Your task to perform on an android device: Empty the shopping cart on newegg.com. Add dell alienware to the cart on newegg.com, then select checkout. Image 0: 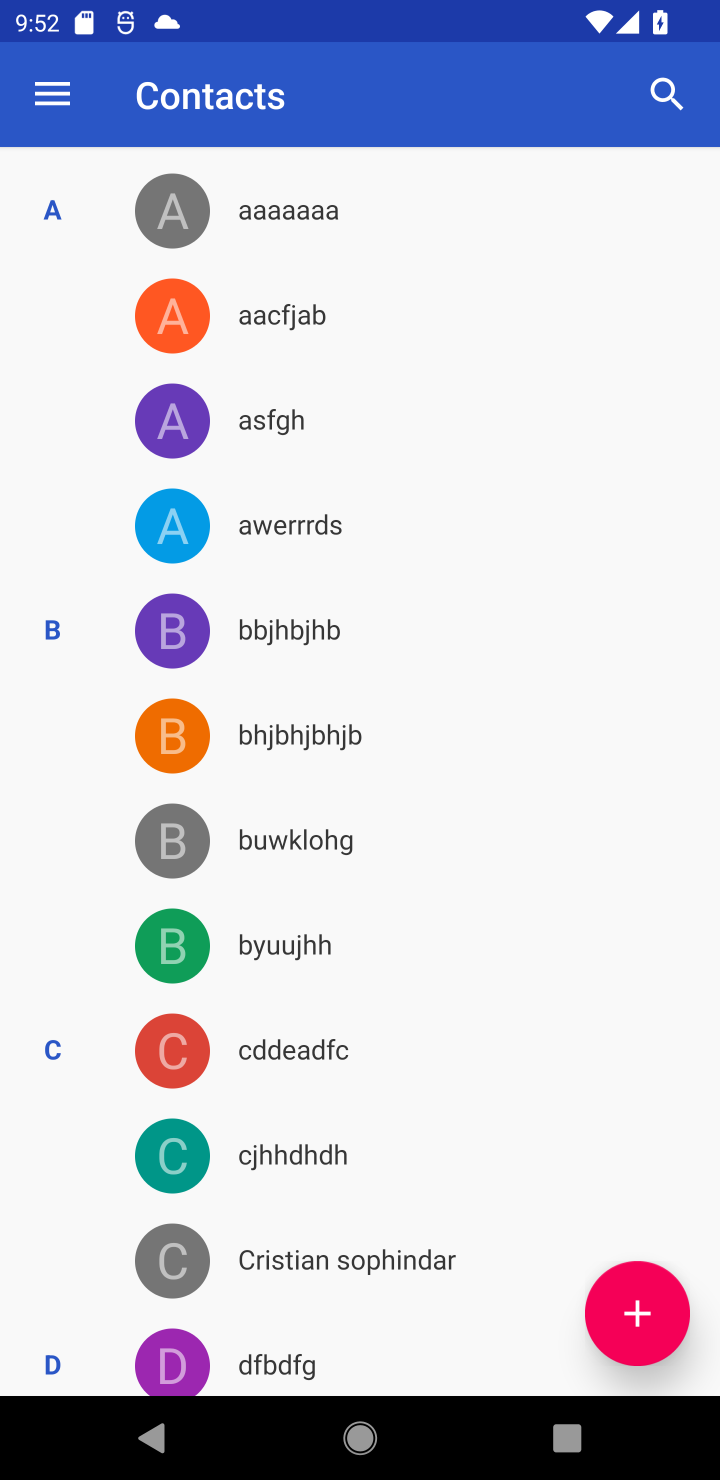
Step 0: press home button
Your task to perform on an android device: Empty the shopping cart on newegg.com. Add dell alienware to the cart on newegg.com, then select checkout. Image 1: 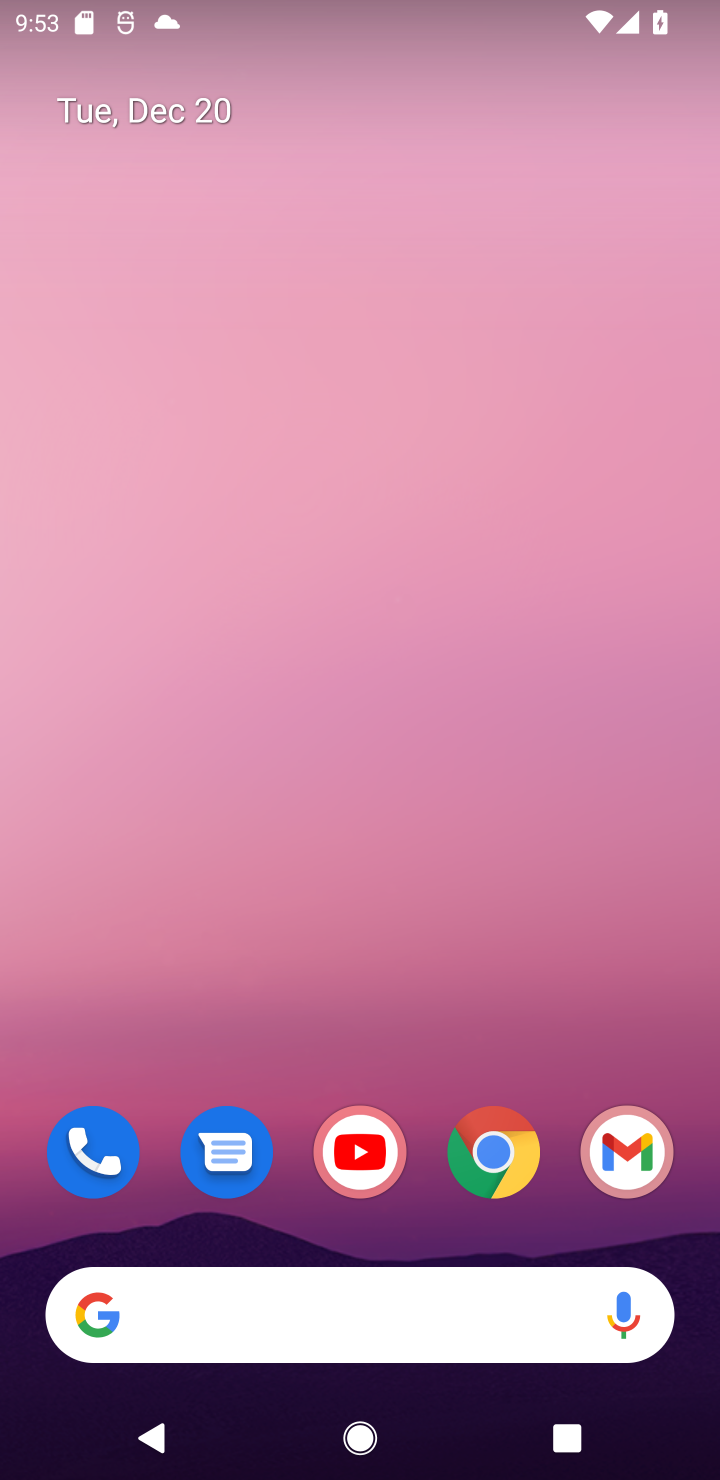
Step 1: click (496, 1128)
Your task to perform on an android device: Empty the shopping cart on newegg.com. Add dell alienware to the cart on newegg.com, then select checkout. Image 2: 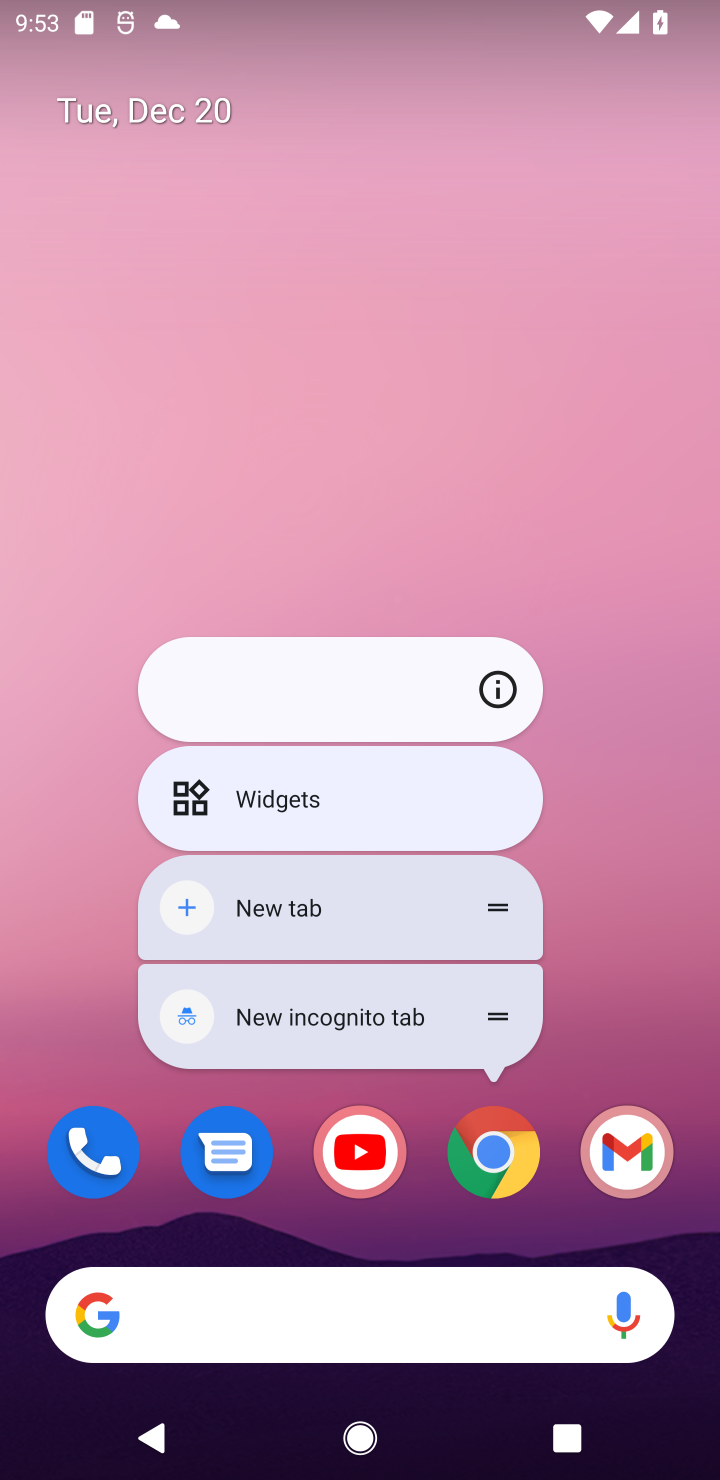
Step 2: click (488, 1163)
Your task to perform on an android device: Empty the shopping cart on newegg.com. Add dell alienware to the cart on newegg.com, then select checkout. Image 3: 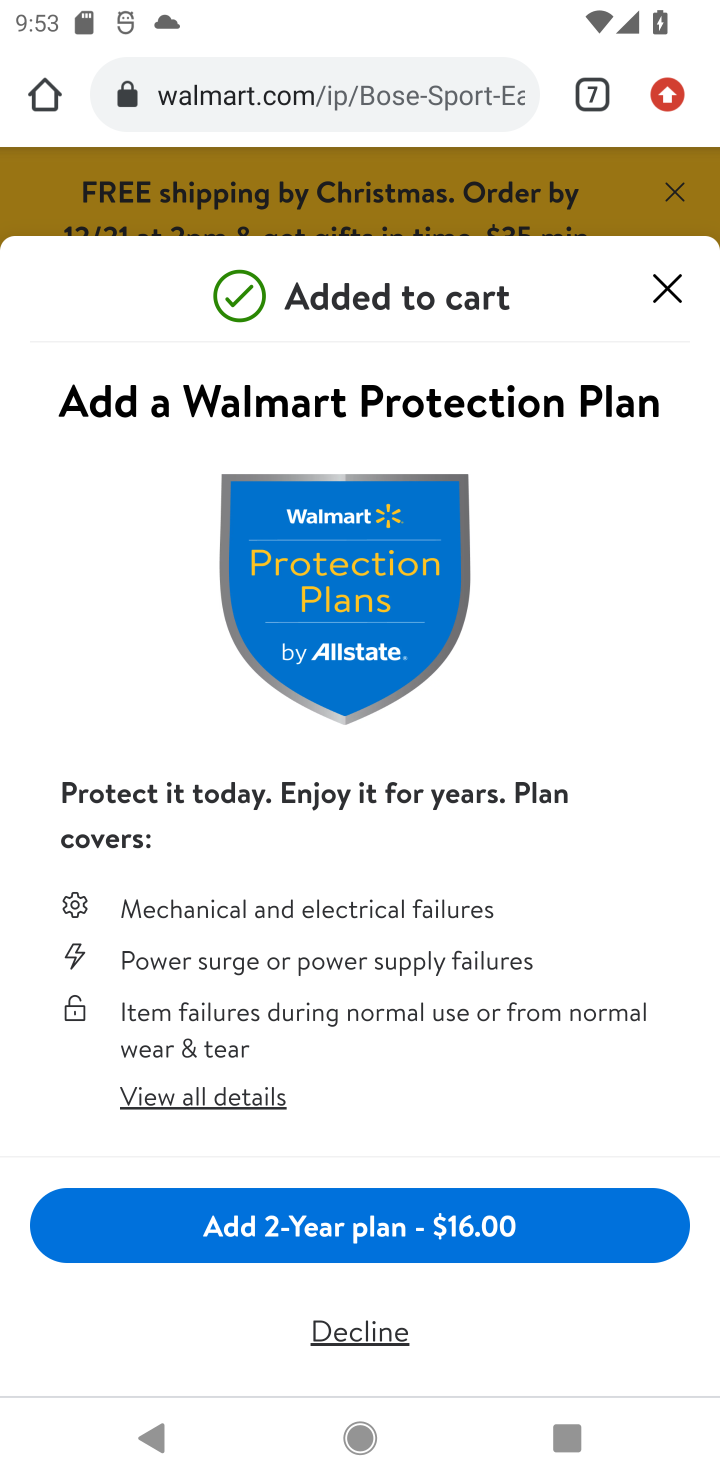
Step 3: click (592, 96)
Your task to perform on an android device: Empty the shopping cart on newegg.com. Add dell alienware to the cart on newegg.com, then select checkout. Image 4: 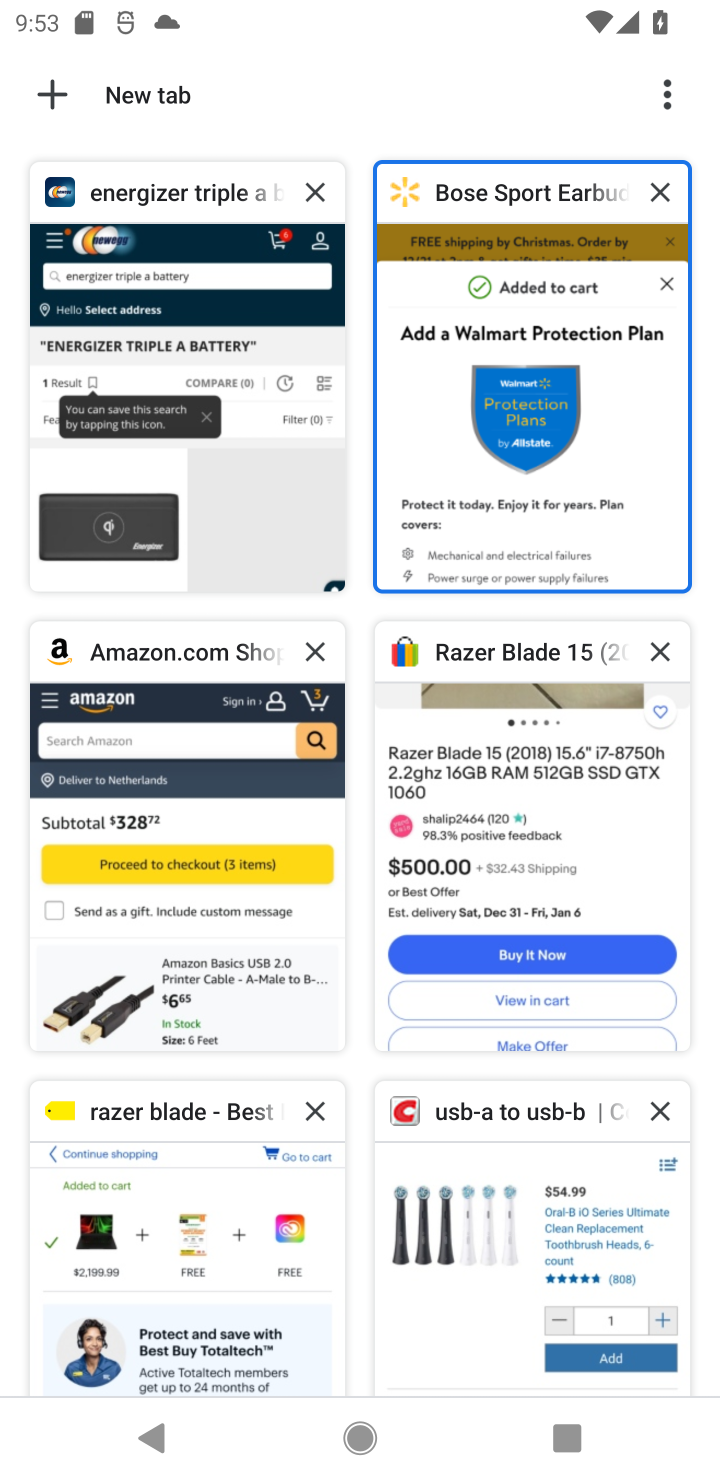
Step 4: click (190, 410)
Your task to perform on an android device: Empty the shopping cart on newegg.com. Add dell alienware to the cart on newegg.com, then select checkout. Image 5: 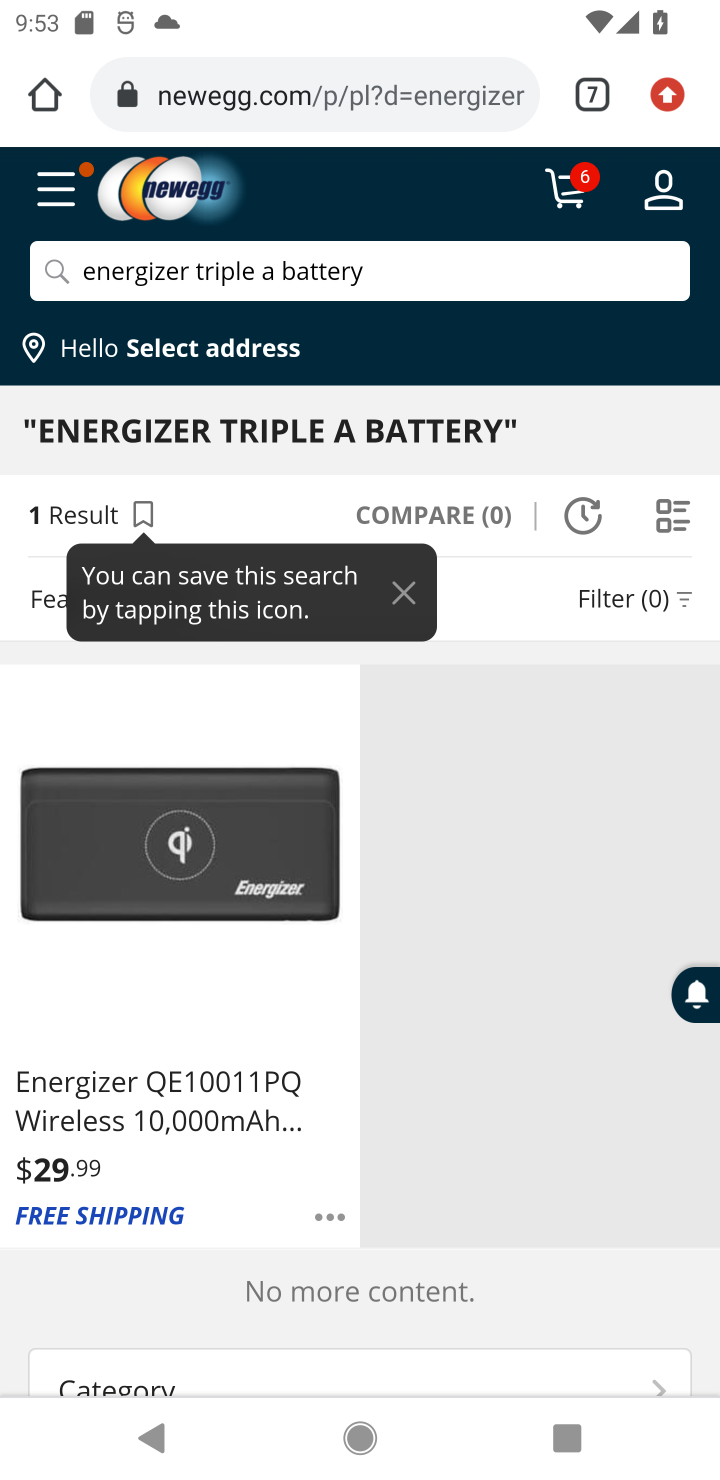
Step 5: click (453, 285)
Your task to perform on an android device: Empty the shopping cart on newegg.com. Add dell alienware to the cart on newegg.com, then select checkout. Image 6: 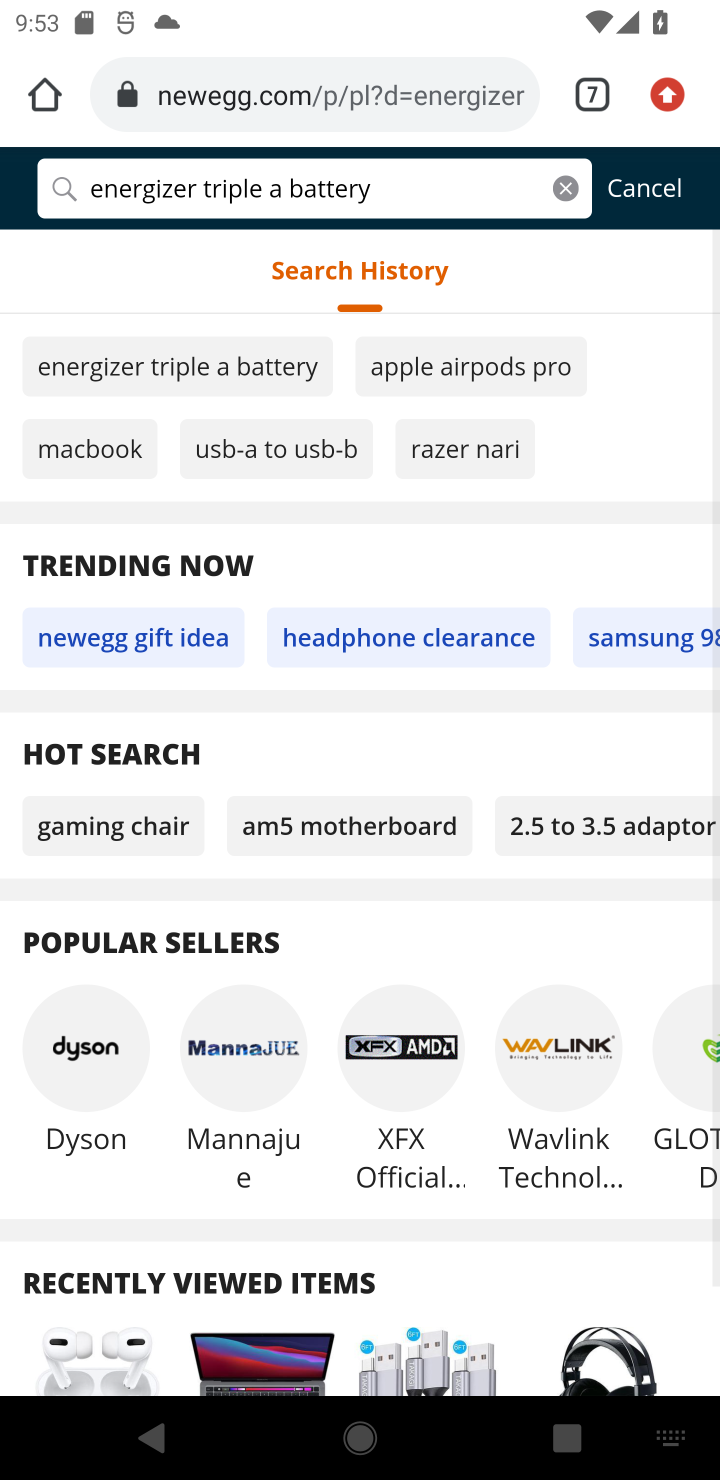
Step 6: click (565, 192)
Your task to perform on an android device: Empty the shopping cart on newegg.com. Add dell alienware to the cart on newegg.com, then select checkout. Image 7: 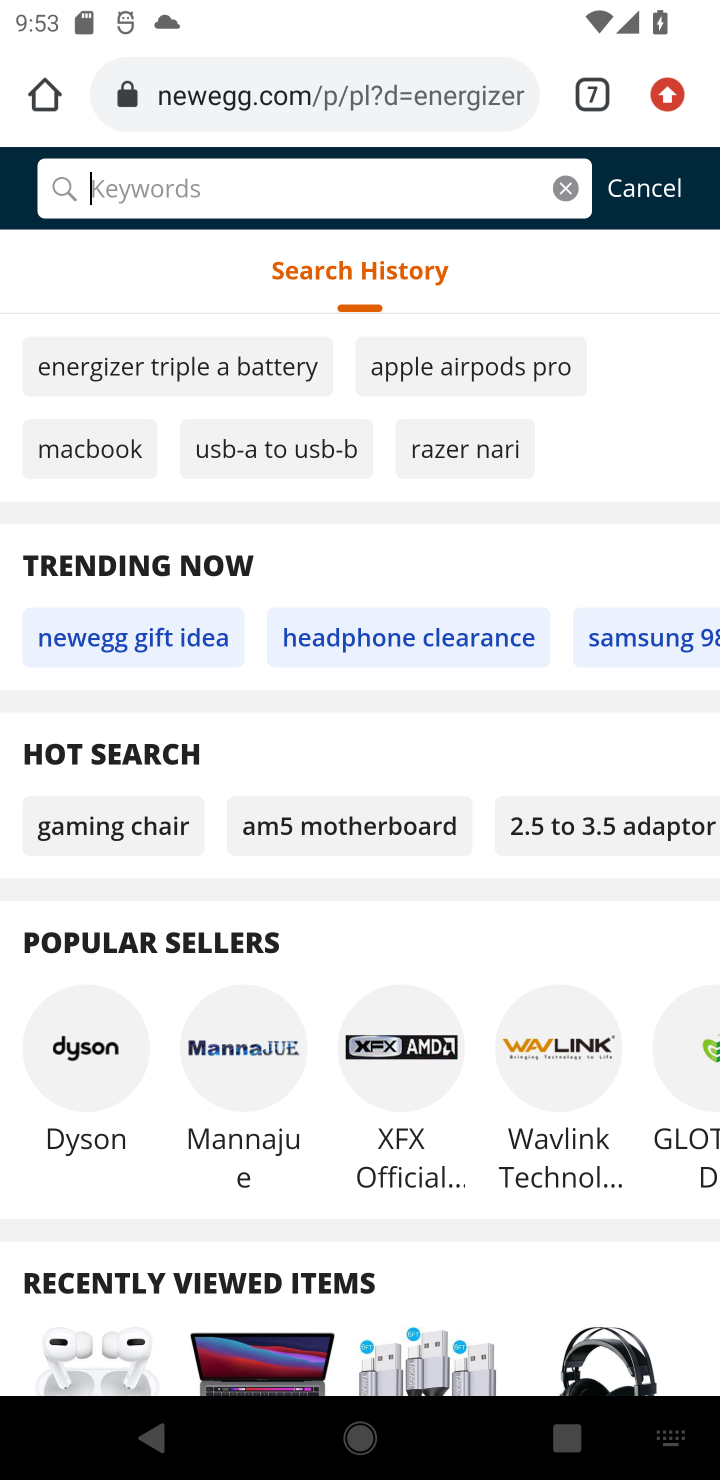
Step 7: type "dell alienware"
Your task to perform on an android device: Empty the shopping cart on newegg.com. Add dell alienware to the cart on newegg.com, then select checkout. Image 8: 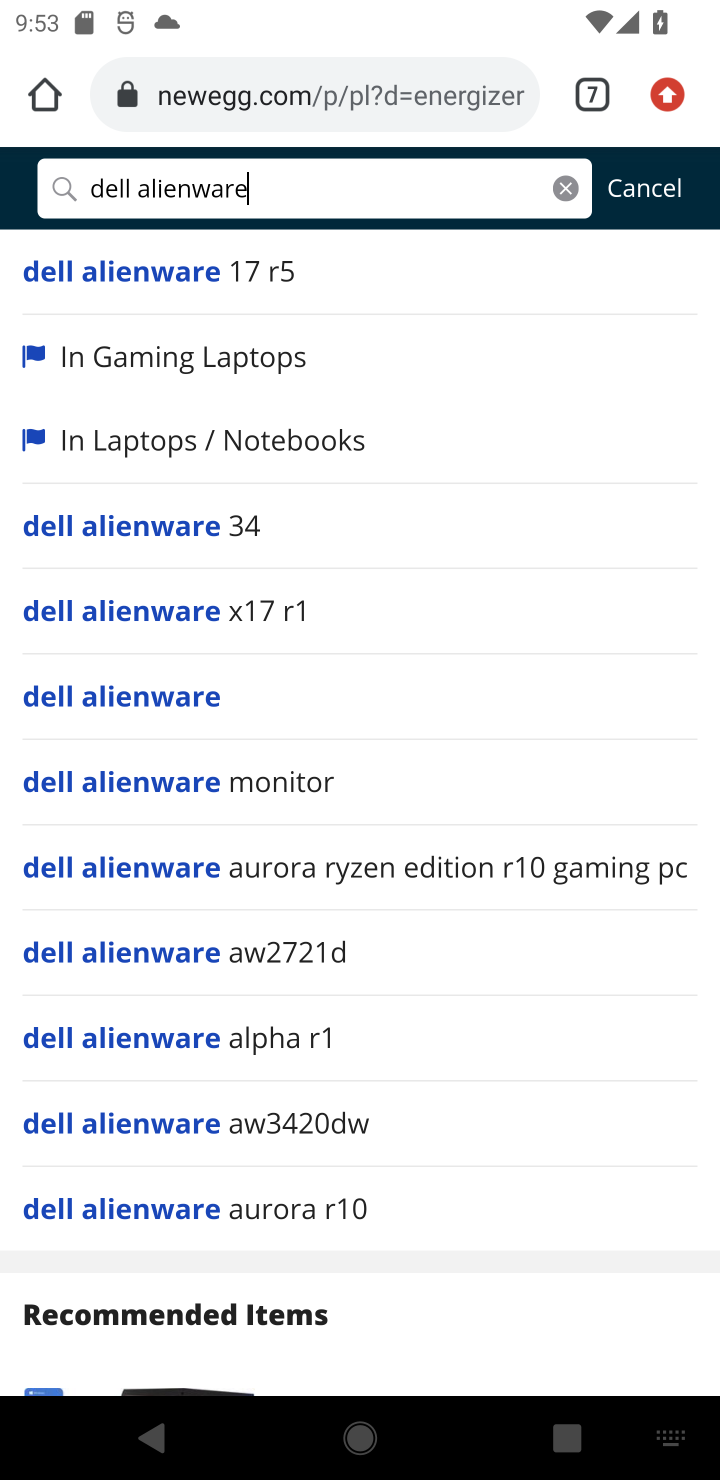
Step 8: click (141, 687)
Your task to perform on an android device: Empty the shopping cart on newegg.com. Add dell alienware to the cart on newegg.com, then select checkout. Image 9: 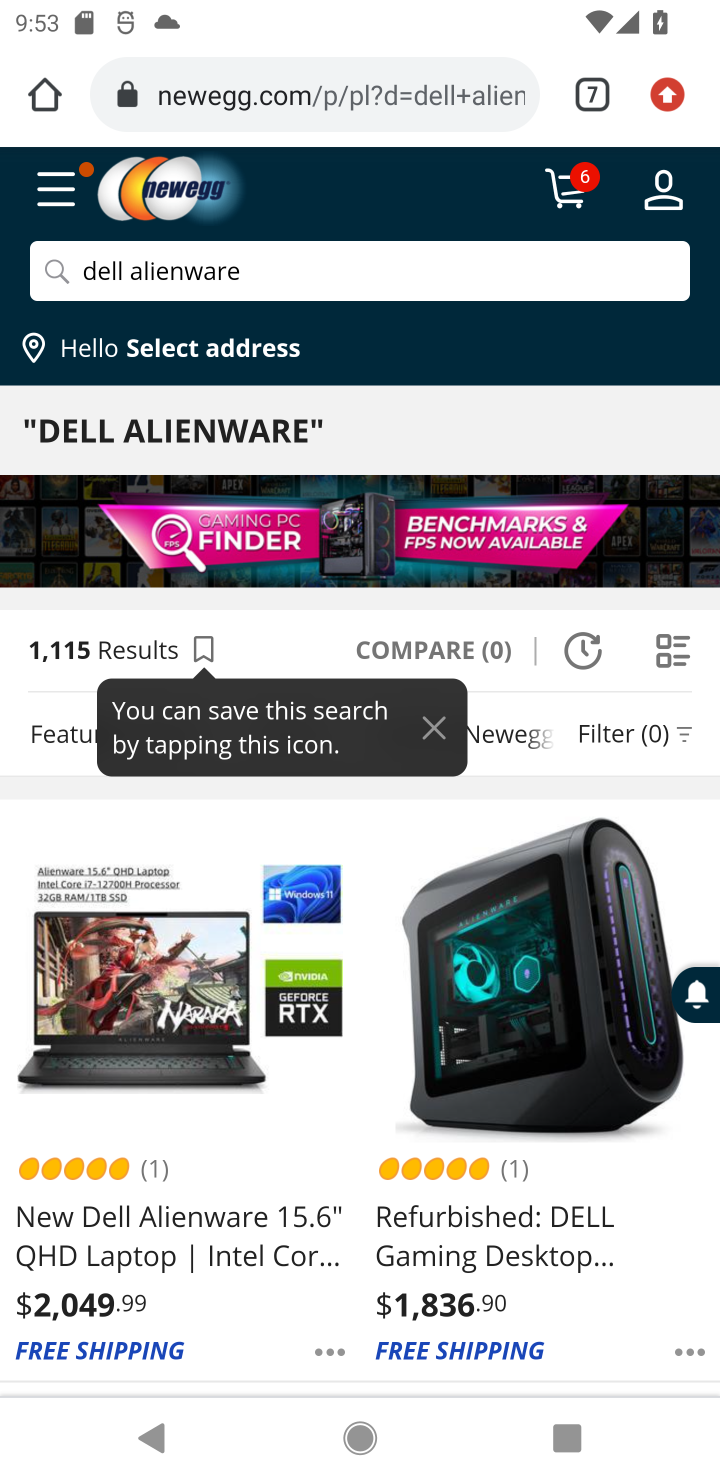
Step 9: click (257, 1223)
Your task to perform on an android device: Empty the shopping cart on newegg.com. Add dell alienware to the cart on newegg.com, then select checkout. Image 10: 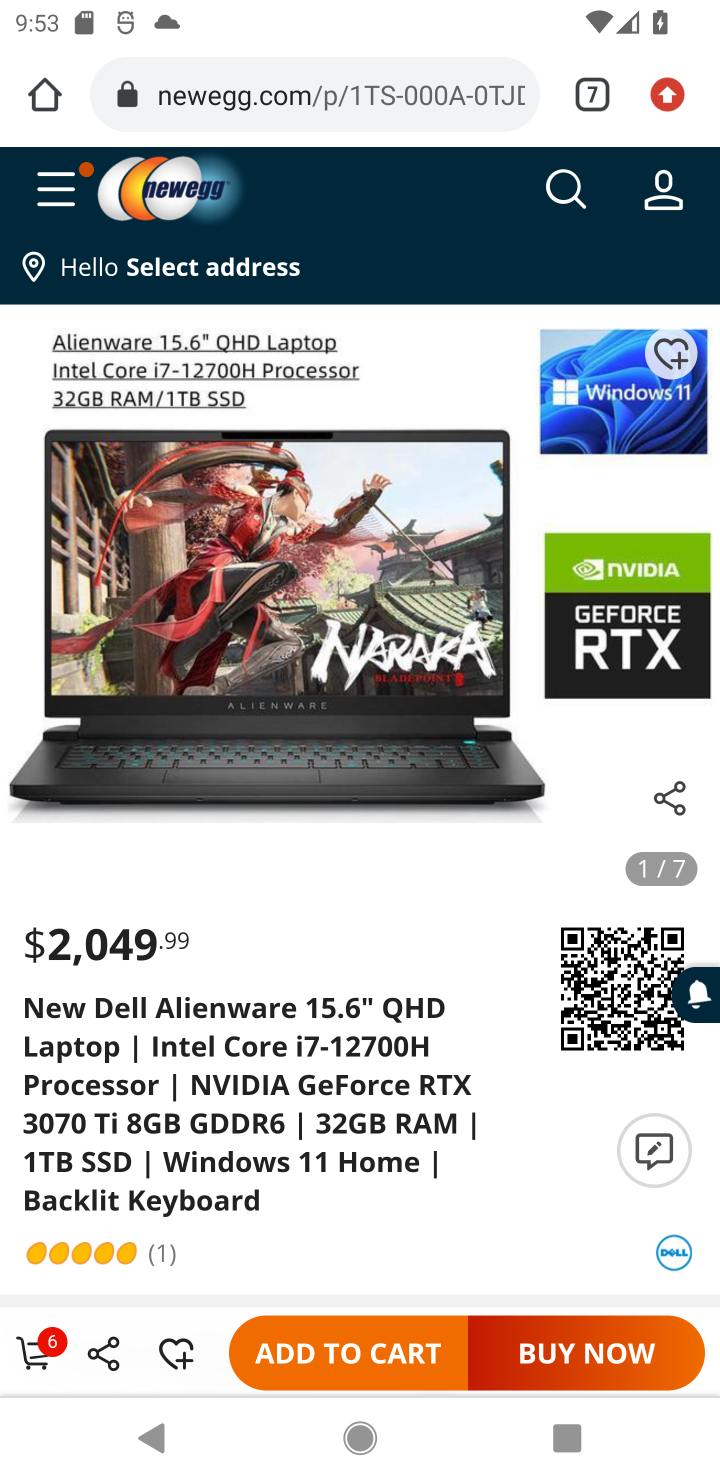
Step 10: click (357, 1346)
Your task to perform on an android device: Empty the shopping cart on newegg.com. Add dell alienware to the cart on newegg.com, then select checkout. Image 11: 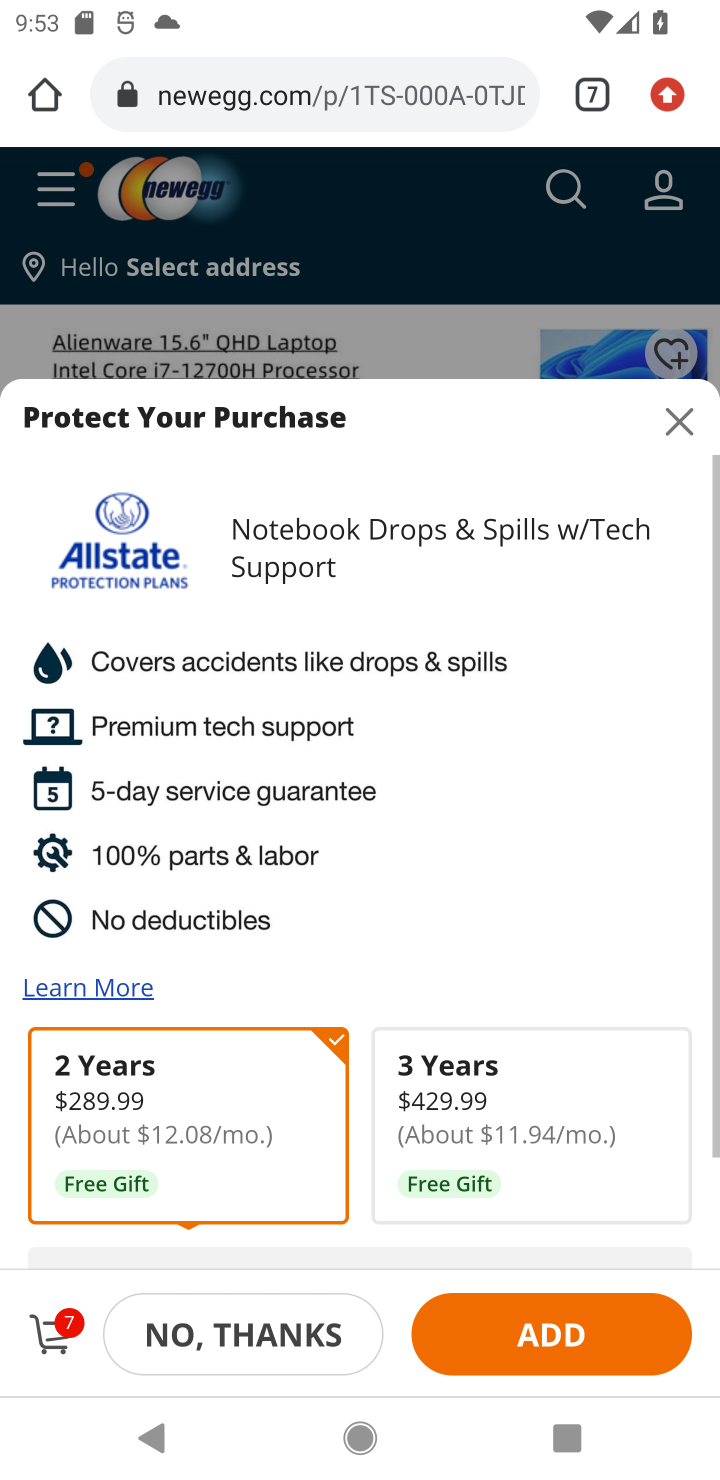
Step 11: task complete